Your task to perform on an android device: Go to Reddit.com Image 0: 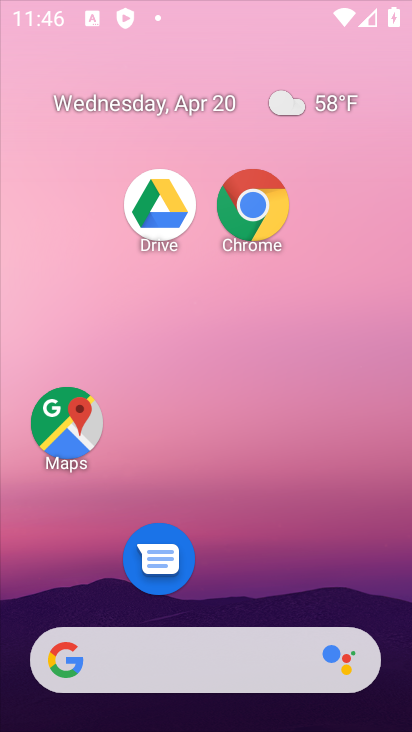
Step 0: drag from (271, 5) to (328, 25)
Your task to perform on an android device: Go to Reddit.com Image 1: 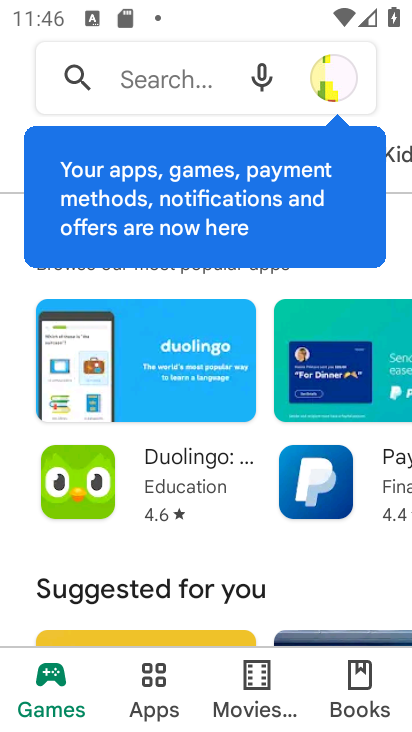
Step 1: press home button
Your task to perform on an android device: Go to Reddit.com Image 2: 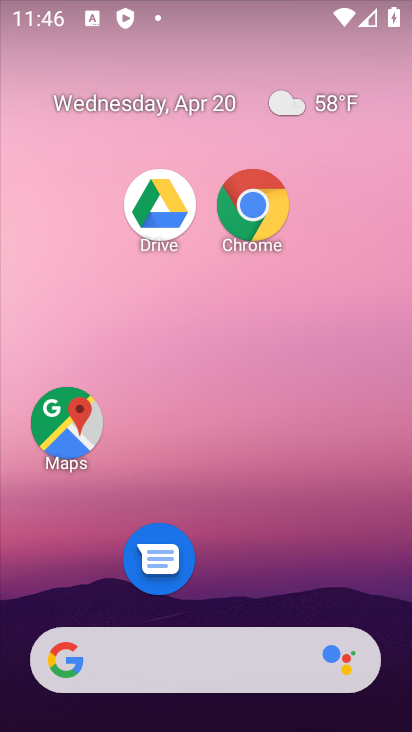
Step 2: drag from (263, 594) to (345, 13)
Your task to perform on an android device: Go to Reddit.com Image 3: 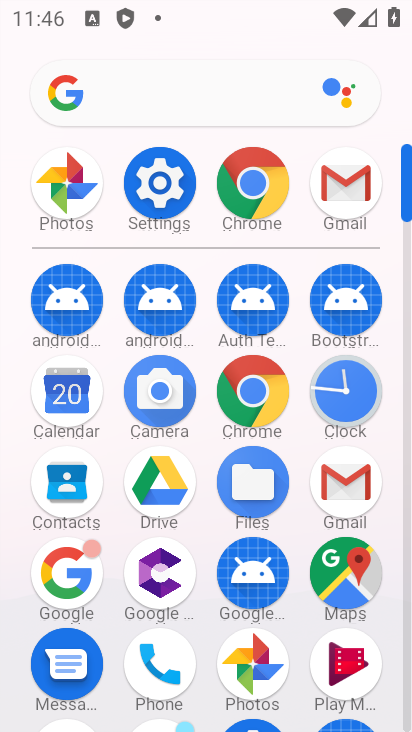
Step 3: drag from (208, 619) to (244, 90)
Your task to perform on an android device: Go to Reddit.com Image 4: 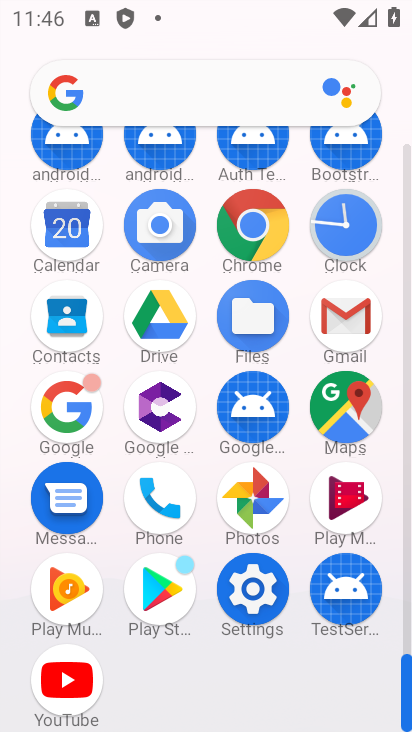
Step 4: click (252, 220)
Your task to perform on an android device: Go to Reddit.com Image 5: 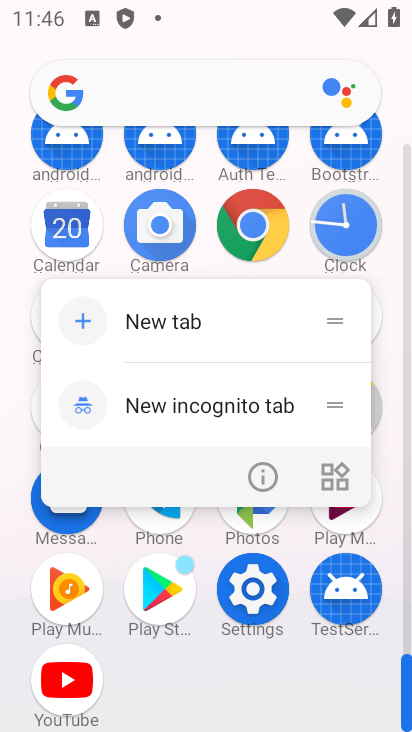
Step 5: click (258, 242)
Your task to perform on an android device: Go to Reddit.com Image 6: 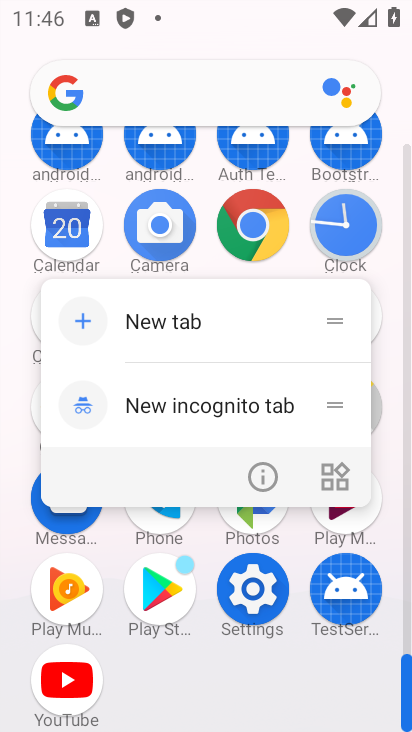
Step 6: click (258, 242)
Your task to perform on an android device: Go to Reddit.com Image 7: 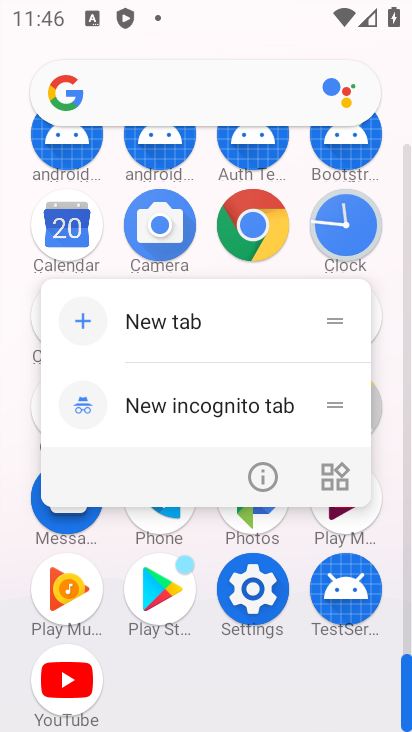
Step 7: click (258, 242)
Your task to perform on an android device: Go to Reddit.com Image 8: 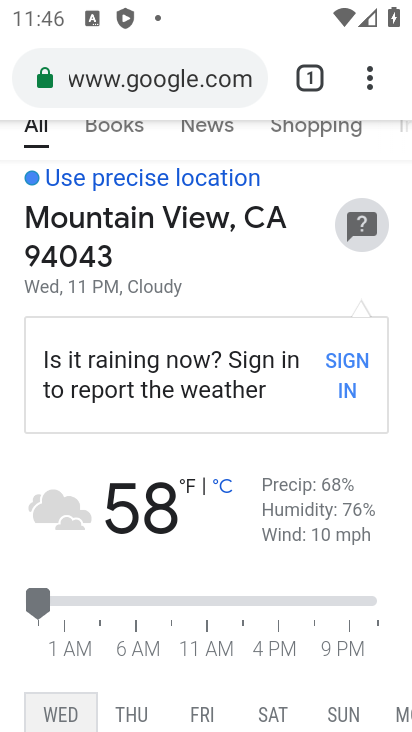
Step 8: click (218, 79)
Your task to perform on an android device: Go to Reddit.com Image 9: 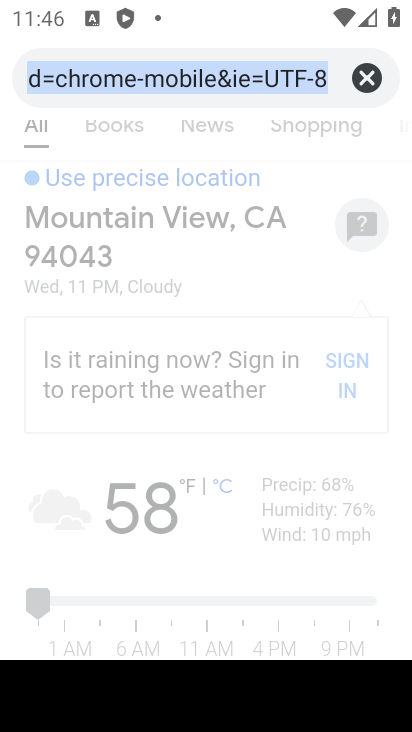
Step 9: click (354, 82)
Your task to perform on an android device: Go to Reddit.com Image 10: 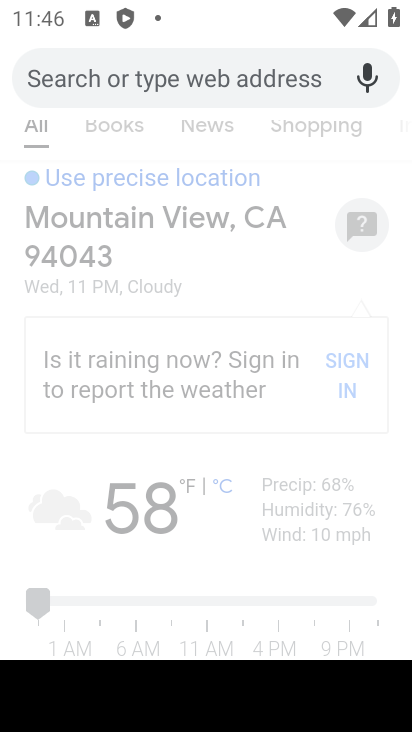
Step 10: type "reddit.com"
Your task to perform on an android device: Go to Reddit.com Image 11: 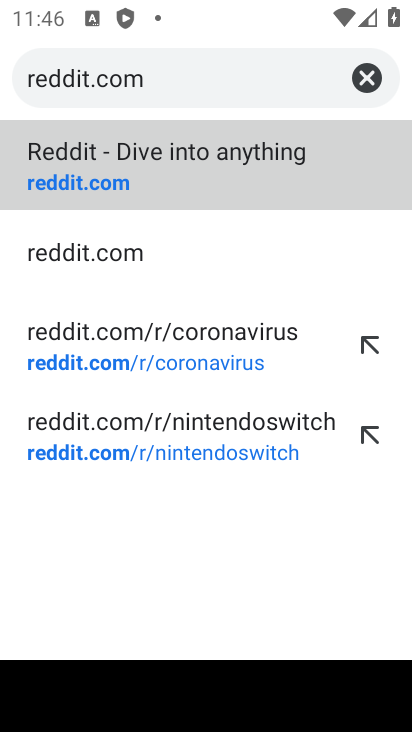
Step 11: click (188, 176)
Your task to perform on an android device: Go to Reddit.com Image 12: 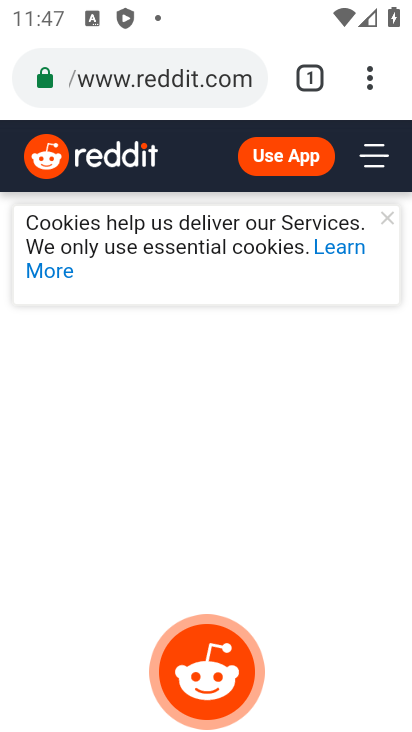
Step 12: task complete